Your task to perform on an android device: make emails show in primary in the gmail app Image 0: 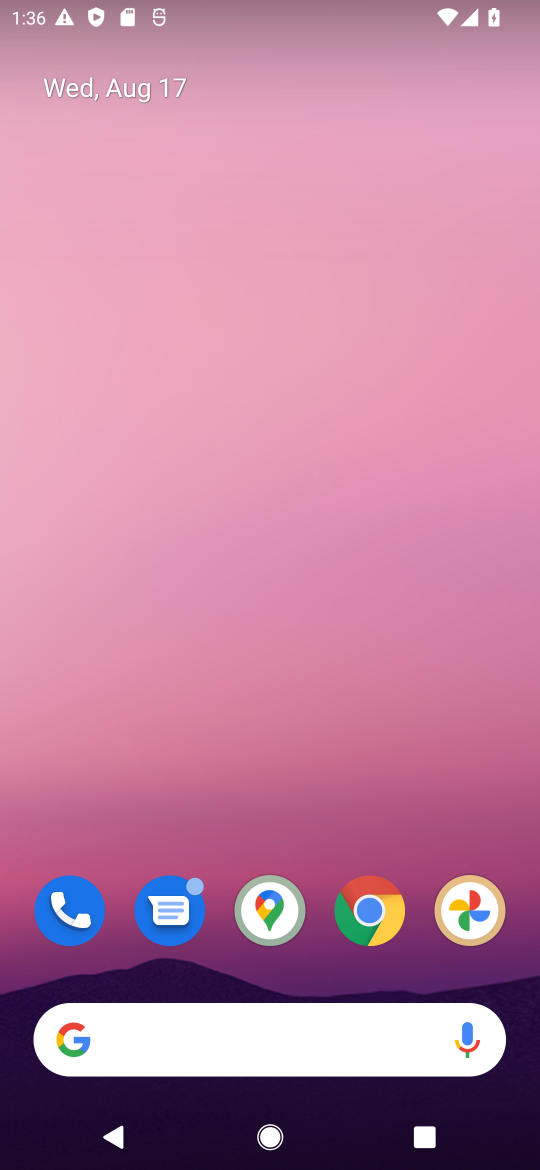
Step 0: drag from (220, 1013) to (272, 22)
Your task to perform on an android device: make emails show in primary in the gmail app Image 1: 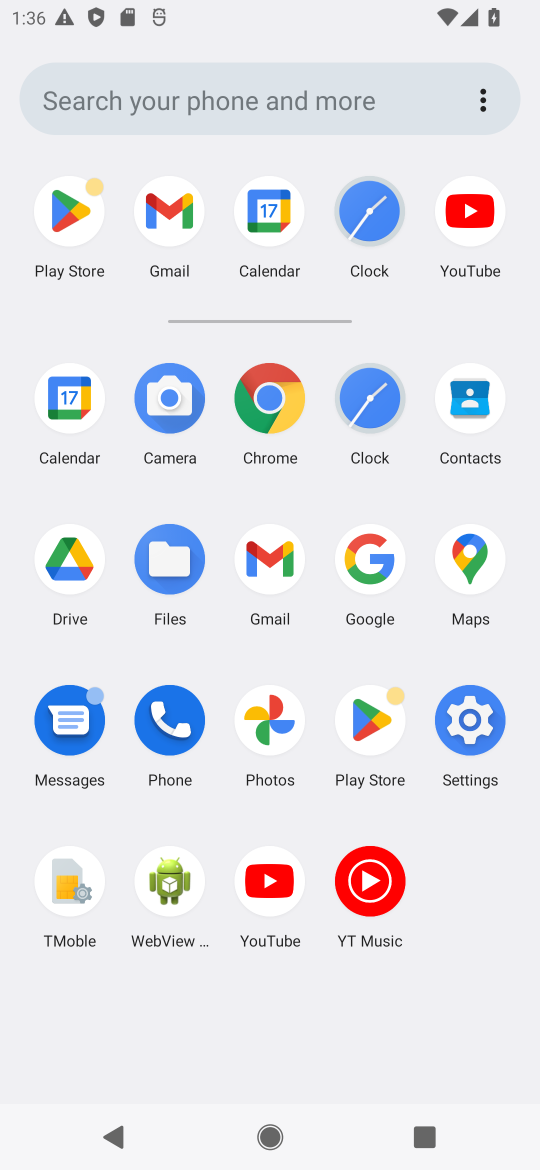
Step 1: click (173, 216)
Your task to perform on an android device: make emails show in primary in the gmail app Image 2: 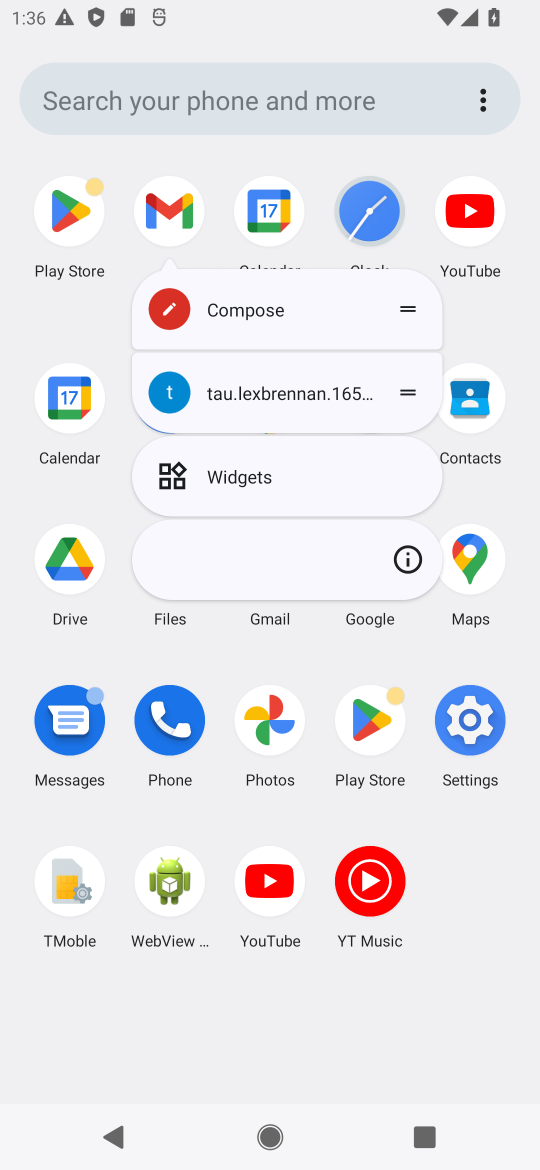
Step 2: click (176, 202)
Your task to perform on an android device: make emails show in primary in the gmail app Image 3: 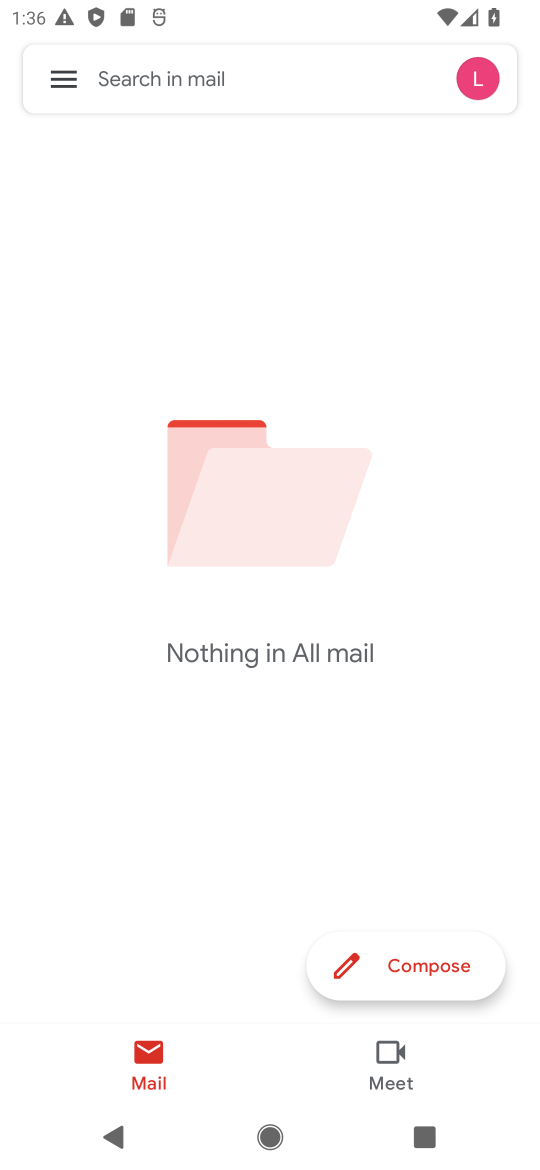
Step 3: click (61, 70)
Your task to perform on an android device: make emails show in primary in the gmail app Image 4: 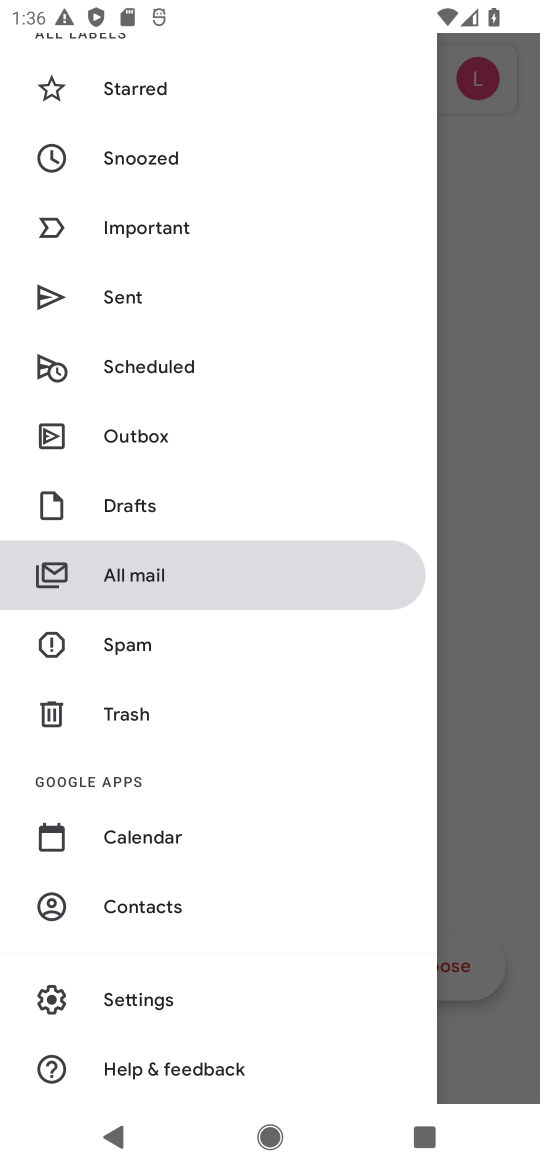
Step 4: click (188, 994)
Your task to perform on an android device: make emails show in primary in the gmail app Image 5: 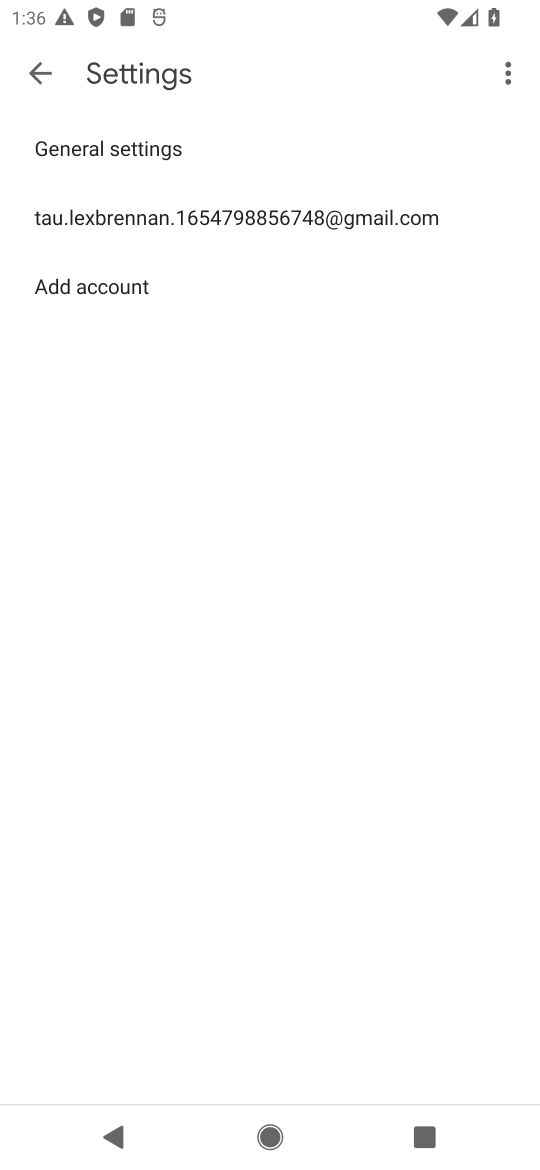
Step 5: click (147, 216)
Your task to perform on an android device: make emails show in primary in the gmail app Image 6: 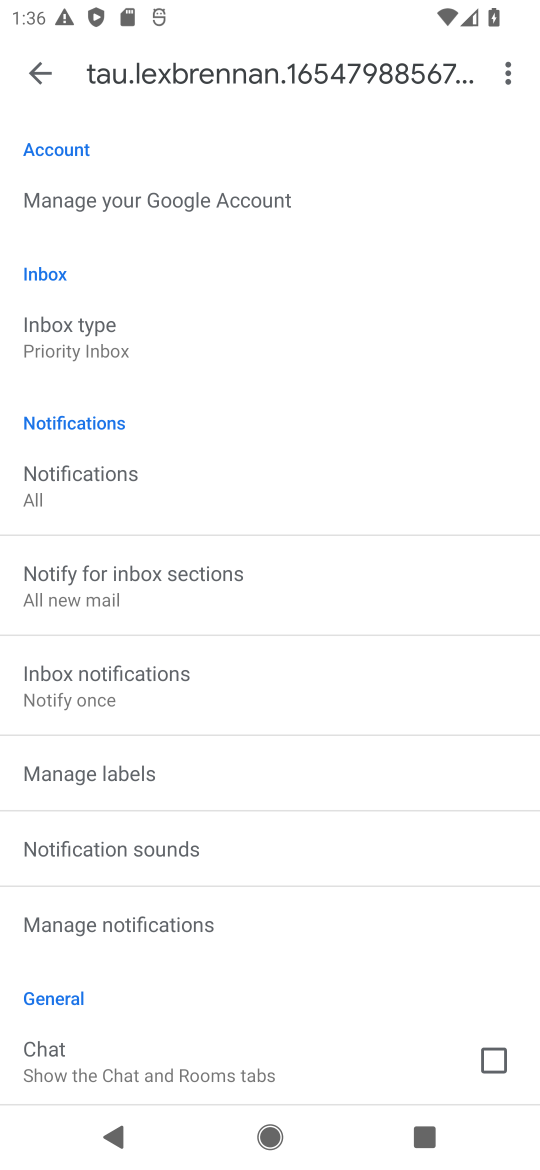
Step 6: task complete